Your task to perform on an android device: What's the weather? Image 0: 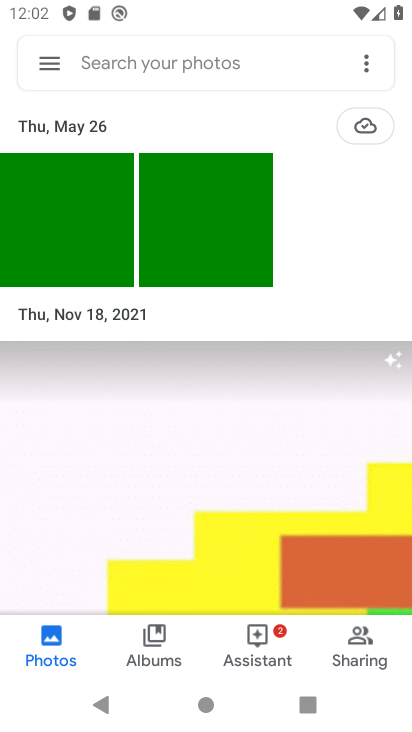
Step 0: press home button
Your task to perform on an android device: What's the weather? Image 1: 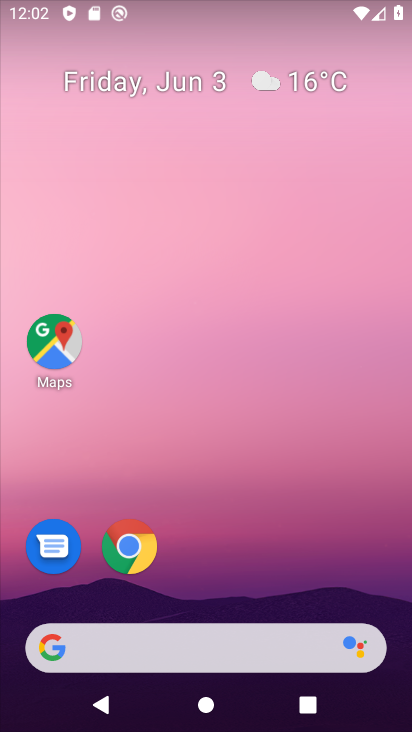
Step 1: click (167, 652)
Your task to perform on an android device: What's the weather? Image 2: 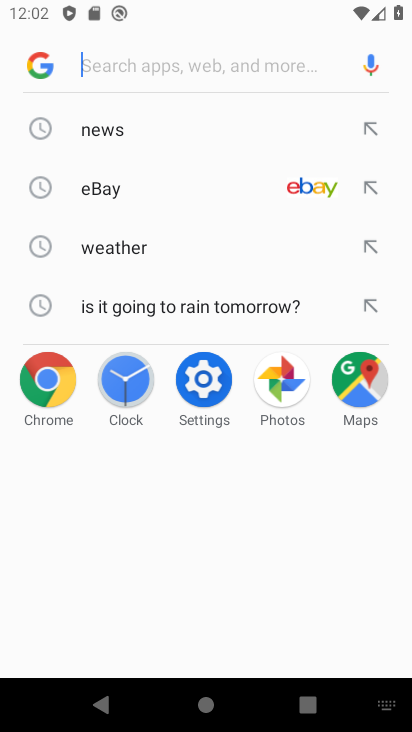
Step 2: click (112, 247)
Your task to perform on an android device: What's the weather? Image 3: 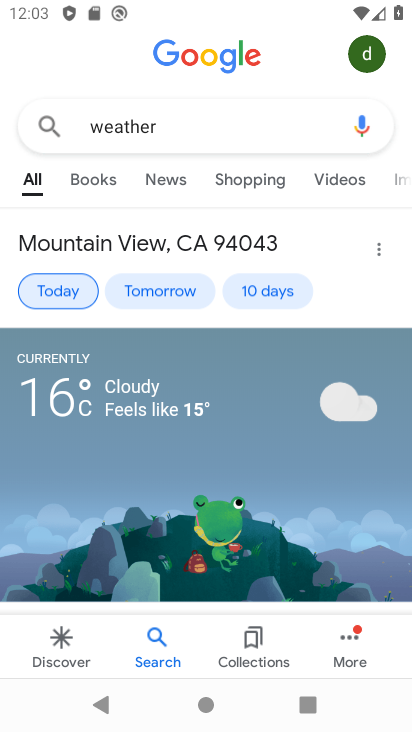
Step 3: task complete